Your task to perform on an android device: toggle show notifications on the lock screen Image 0: 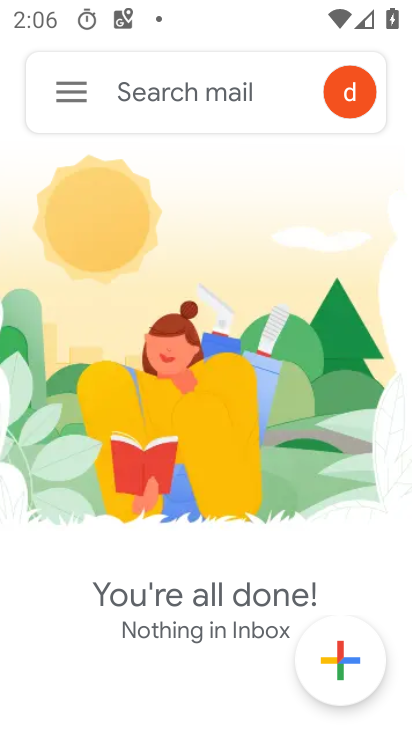
Step 0: press home button
Your task to perform on an android device: toggle show notifications on the lock screen Image 1: 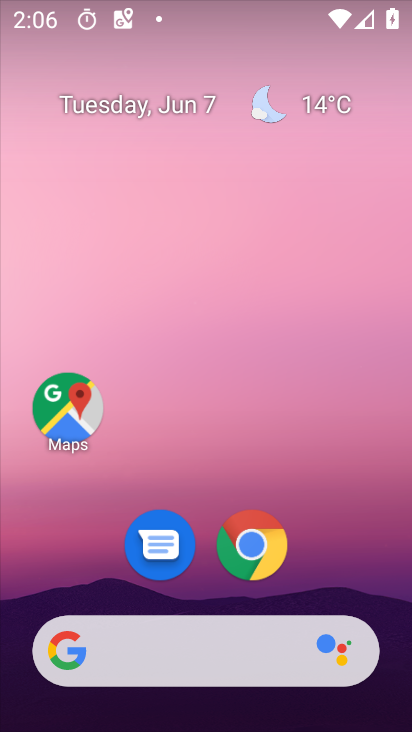
Step 1: drag from (202, 174) to (81, 38)
Your task to perform on an android device: toggle show notifications on the lock screen Image 2: 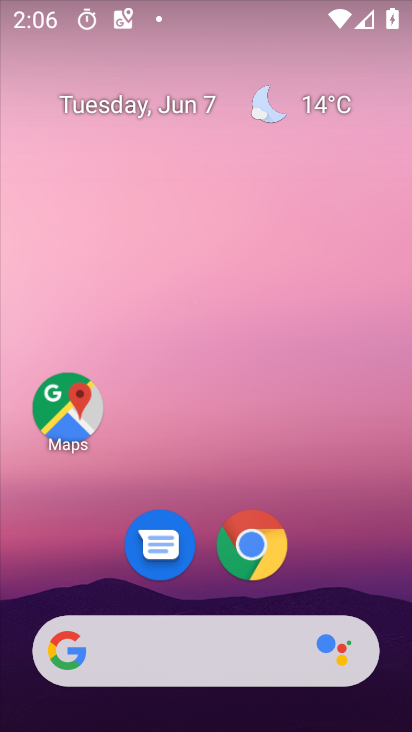
Step 2: drag from (303, 272) to (173, 2)
Your task to perform on an android device: toggle show notifications on the lock screen Image 3: 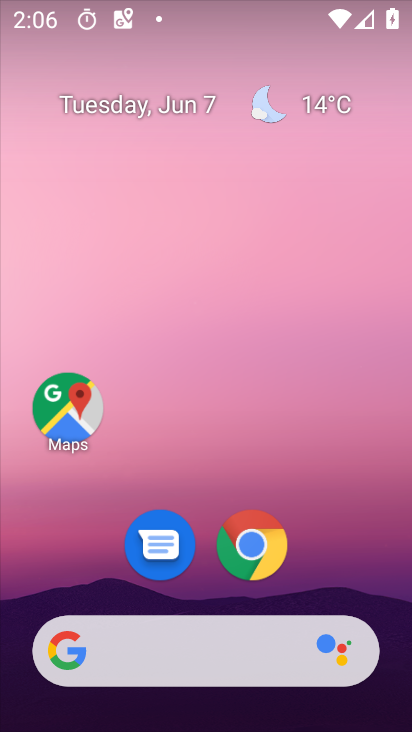
Step 3: drag from (324, 519) to (168, 21)
Your task to perform on an android device: toggle show notifications on the lock screen Image 4: 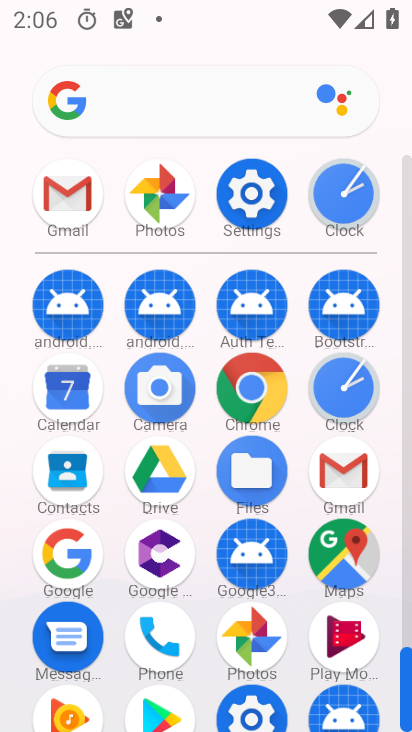
Step 4: click (269, 192)
Your task to perform on an android device: toggle show notifications on the lock screen Image 5: 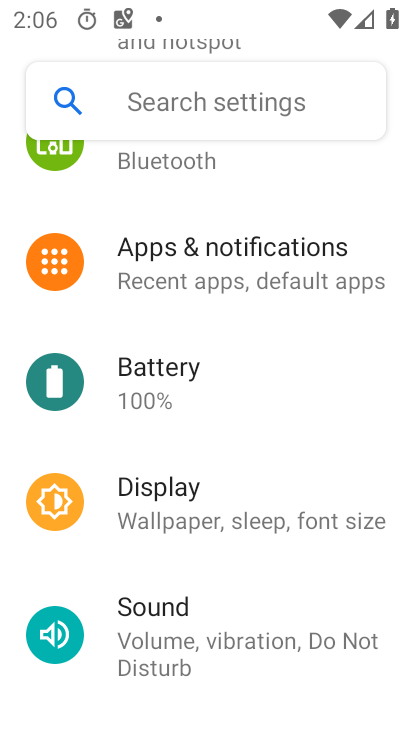
Step 5: click (266, 275)
Your task to perform on an android device: toggle show notifications on the lock screen Image 6: 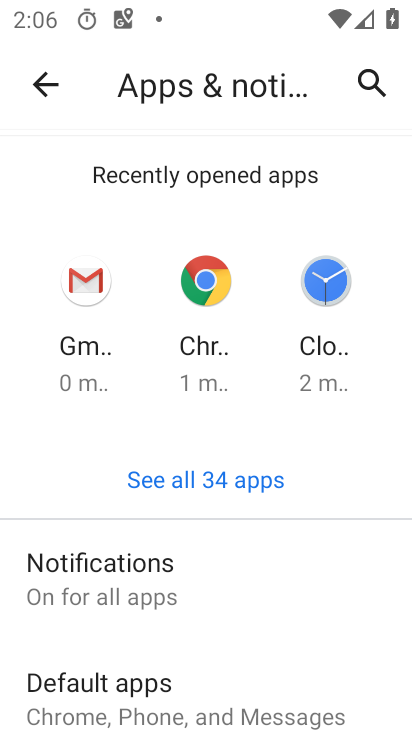
Step 6: click (151, 596)
Your task to perform on an android device: toggle show notifications on the lock screen Image 7: 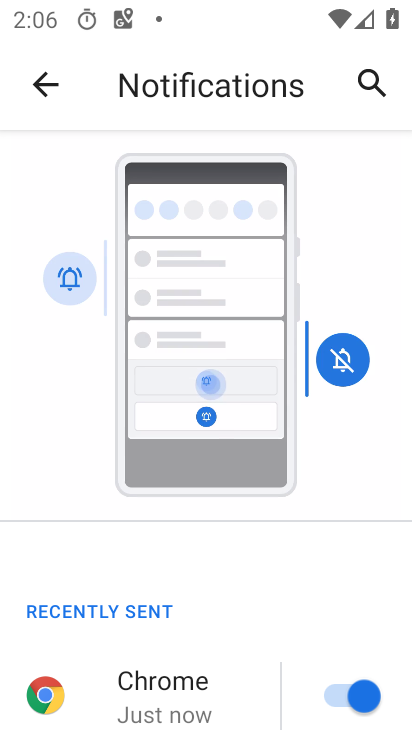
Step 7: drag from (283, 652) to (328, 112)
Your task to perform on an android device: toggle show notifications on the lock screen Image 8: 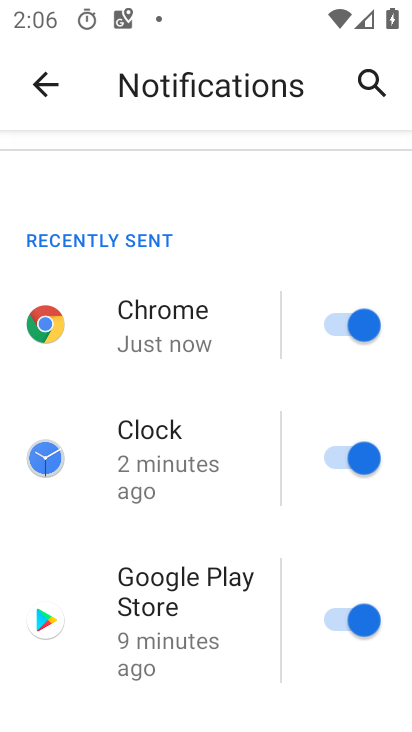
Step 8: drag from (233, 638) to (259, 109)
Your task to perform on an android device: toggle show notifications on the lock screen Image 9: 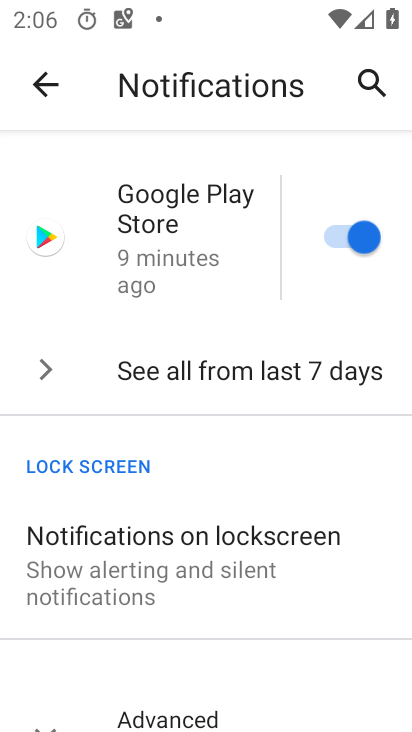
Step 9: click (221, 579)
Your task to perform on an android device: toggle show notifications on the lock screen Image 10: 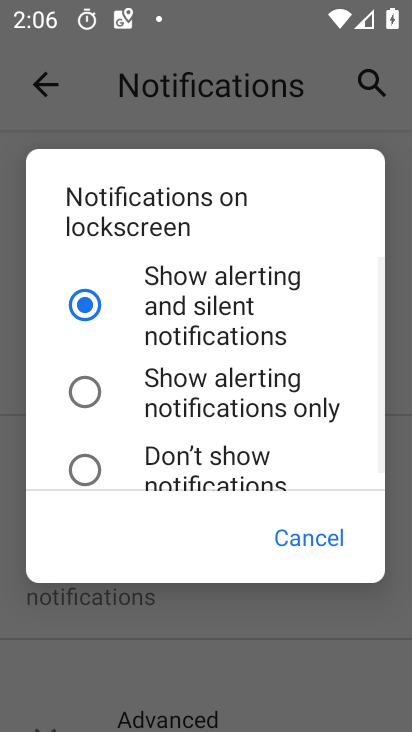
Step 10: click (181, 467)
Your task to perform on an android device: toggle show notifications on the lock screen Image 11: 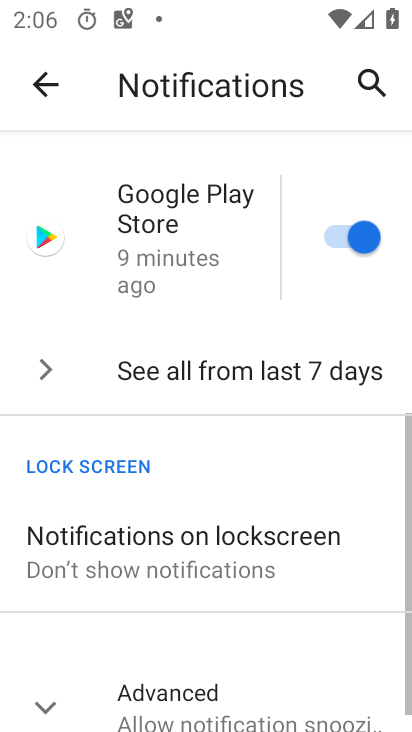
Step 11: task complete